Your task to perform on an android device: What's the weather going to be tomorrow? Image 0: 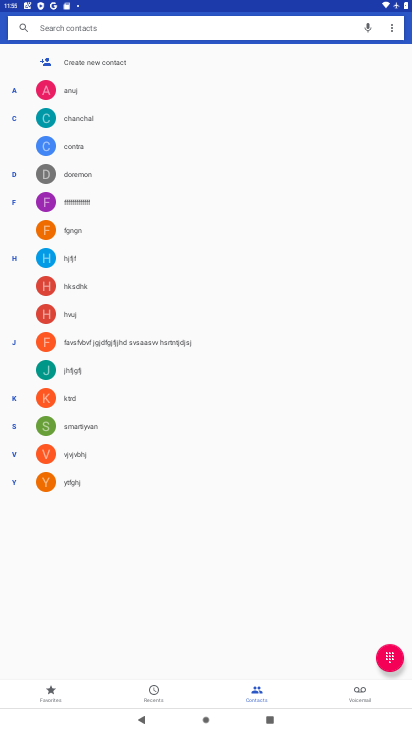
Step 0: press home button
Your task to perform on an android device: What's the weather going to be tomorrow? Image 1: 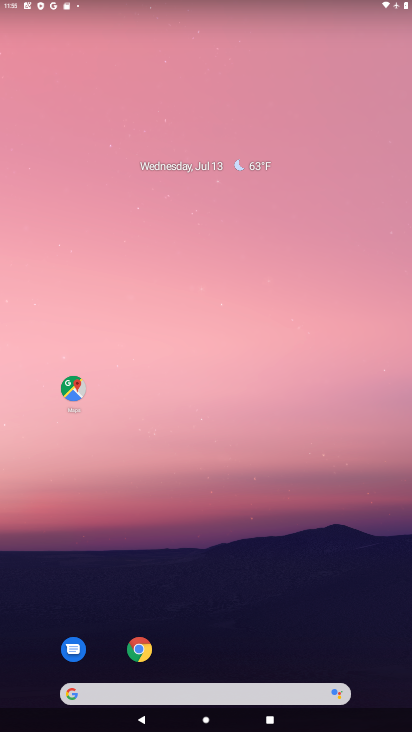
Step 1: drag from (240, 645) to (265, 201)
Your task to perform on an android device: What's the weather going to be tomorrow? Image 2: 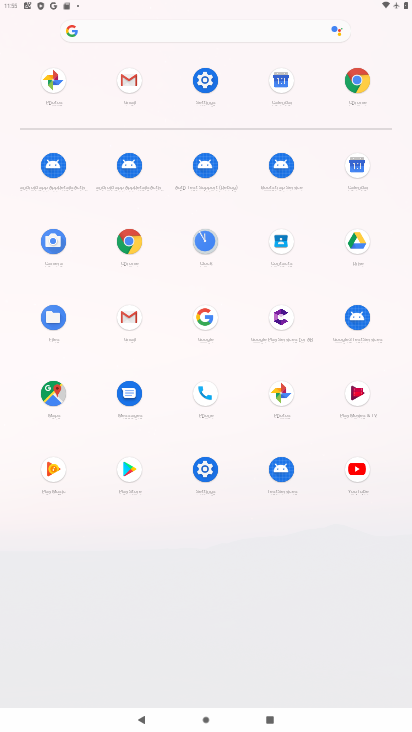
Step 2: click (129, 242)
Your task to perform on an android device: What's the weather going to be tomorrow? Image 3: 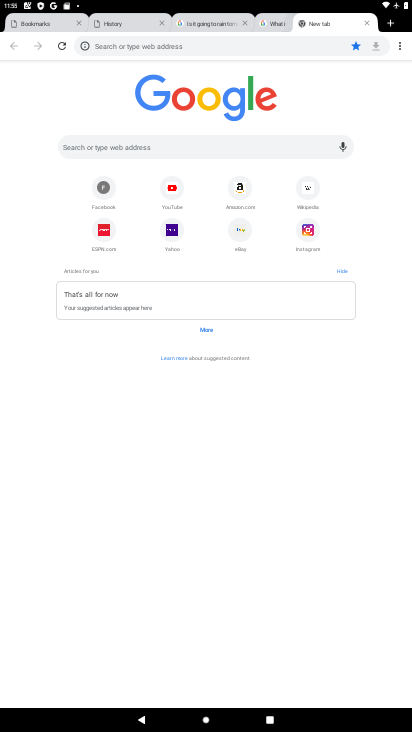
Step 3: click (264, 131)
Your task to perform on an android device: What's the weather going to be tomorrow? Image 4: 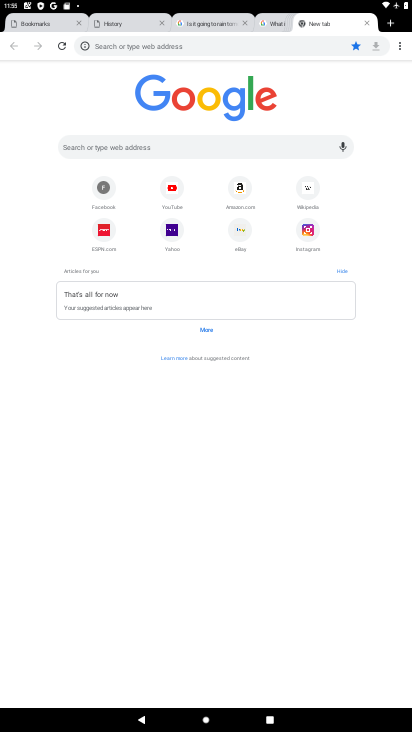
Step 4: type "What's the weather going to be tomorrow "
Your task to perform on an android device: What's the weather going to be tomorrow? Image 5: 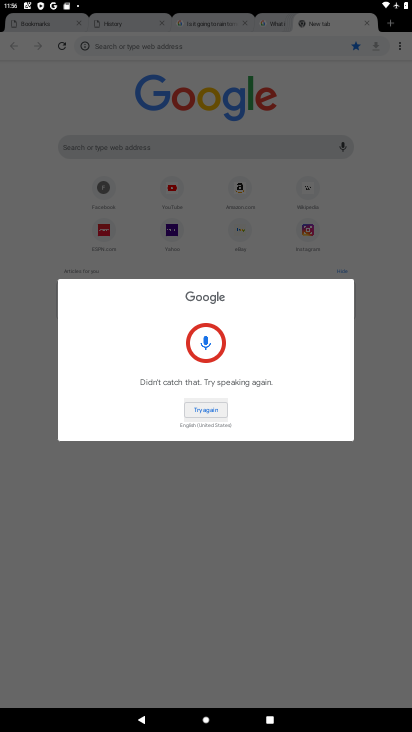
Step 5: click (281, 523)
Your task to perform on an android device: What's the weather going to be tomorrow? Image 6: 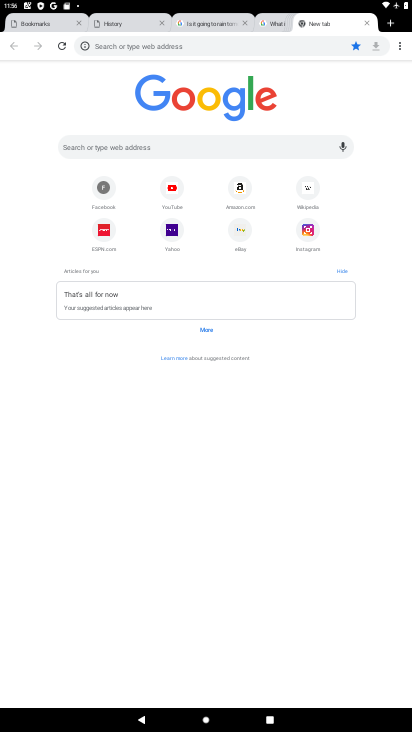
Step 6: click (176, 132)
Your task to perform on an android device: What's the weather going to be tomorrow? Image 7: 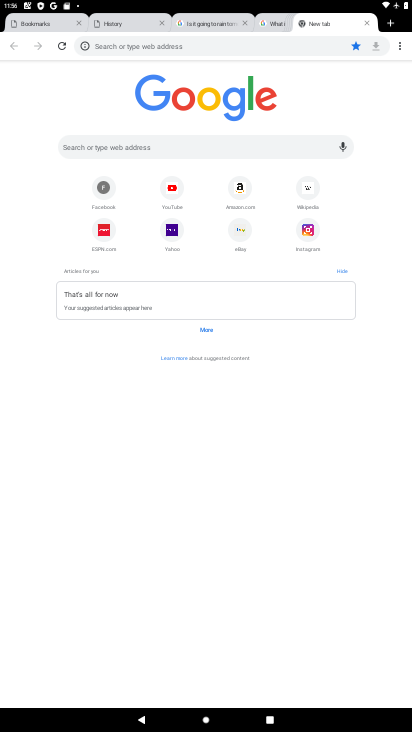
Step 7: click (225, 142)
Your task to perform on an android device: What's the weather going to be tomorrow? Image 8: 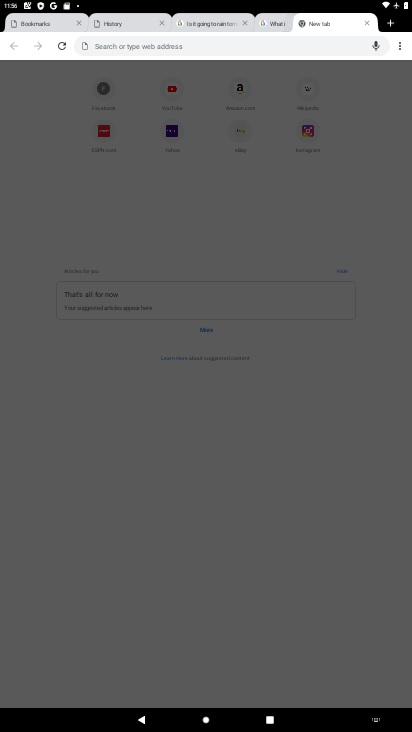
Step 8: type "What's the weather going to be tomorrow "
Your task to perform on an android device: What's the weather going to be tomorrow? Image 9: 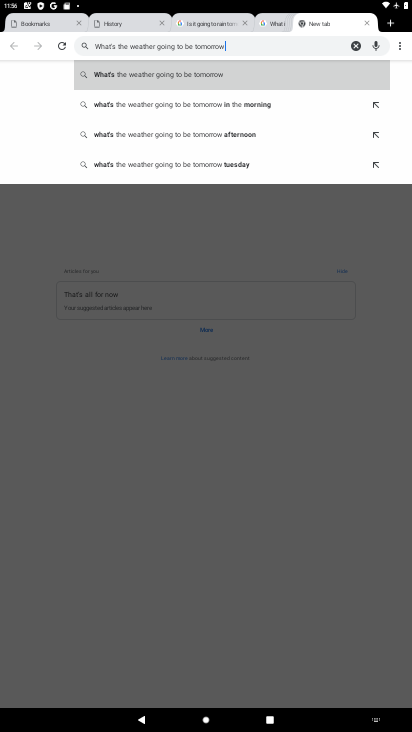
Step 9: click (210, 63)
Your task to perform on an android device: What's the weather going to be tomorrow? Image 10: 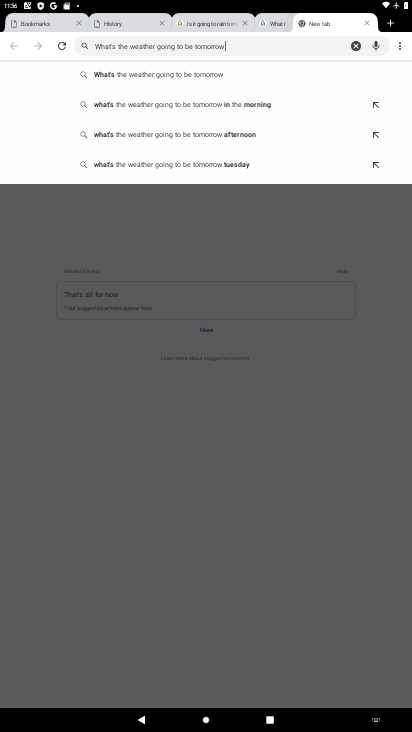
Step 10: click (195, 70)
Your task to perform on an android device: What's the weather going to be tomorrow? Image 11: 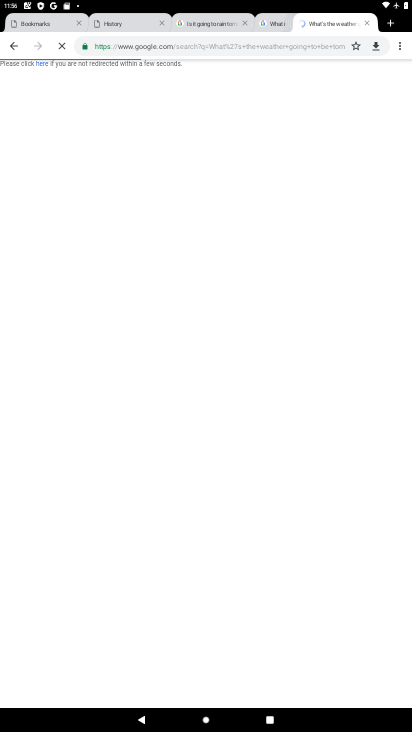
Step 11: task complete